Your task to perform on an android device: Show me some nice wallpapers for my laptop Image 0: 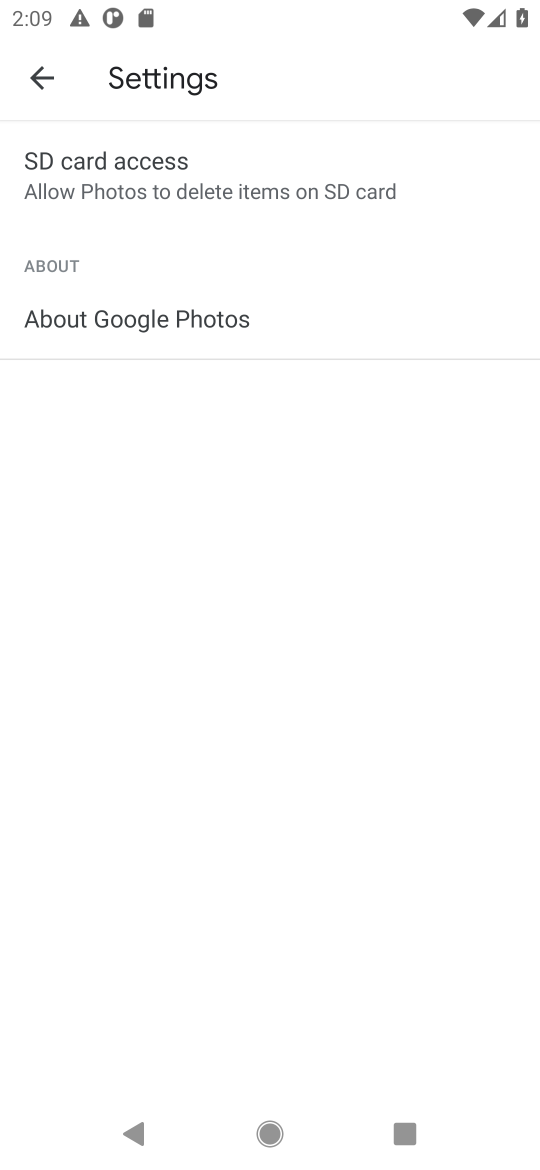
Step 0: press home button
Your task to perform on an android device: Show me some nice wallpapers for my laptop Image 1: 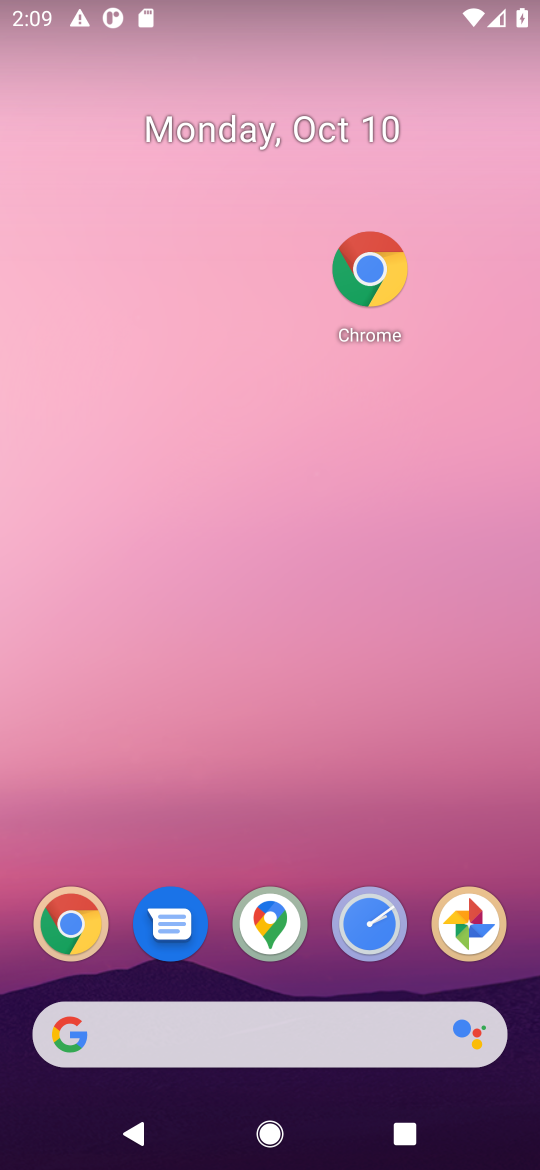
Step 1: drag from (346, 853) to (285, 12)
Your task to perform on an android device: Show me some nice wallpapers for my laptop Image 2: 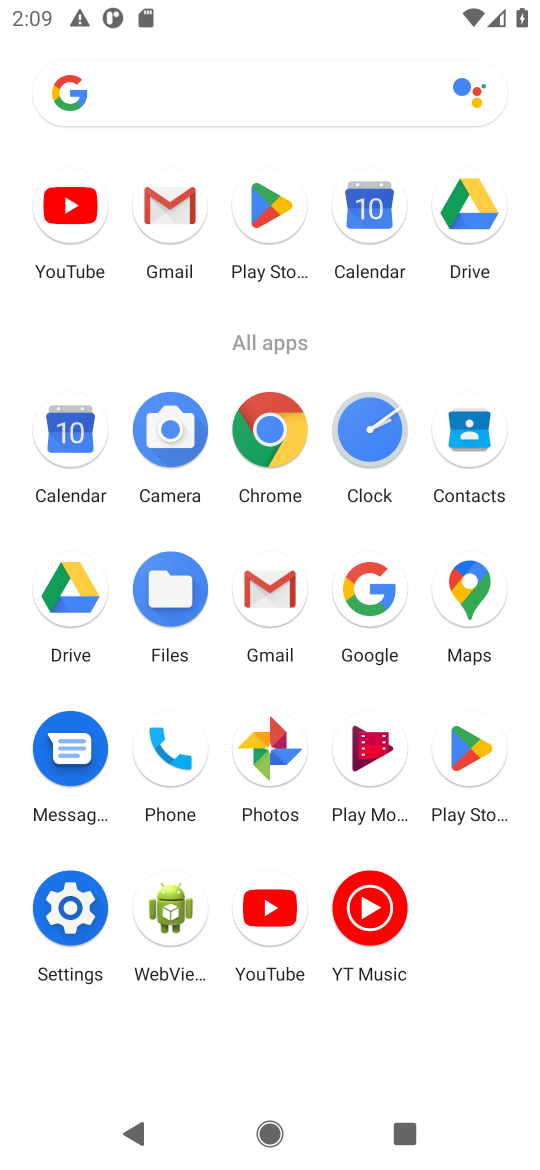
Step 2: click (261, 429)
Your task to perform on an android device: Show me some nice wallpapers for my laptop Image 3: 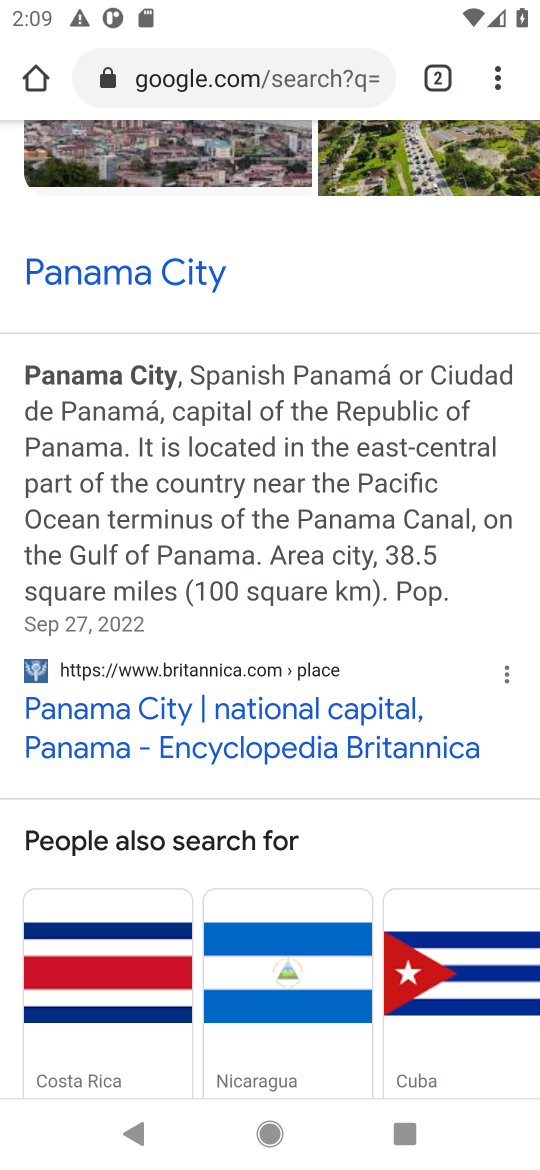
Step 3: click (238, 81)
Your task to perform on an android device: Show me some nice wallpapers for my laptop Image 4: 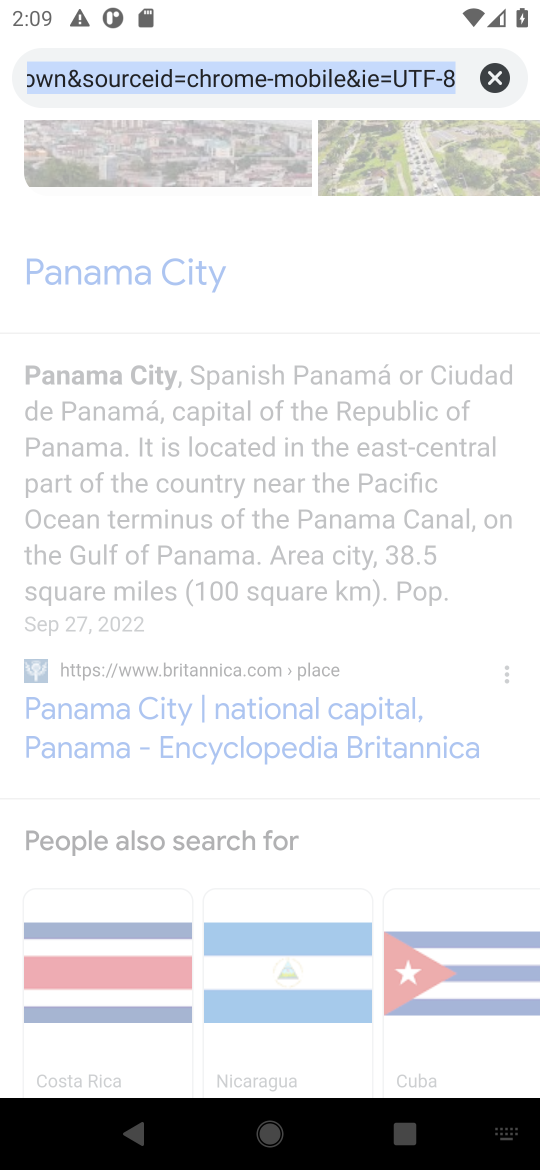
Step 4: click (495, 75)
Your task to perform on an android device: Show me some nice wallpapers for my laptop Image 5: 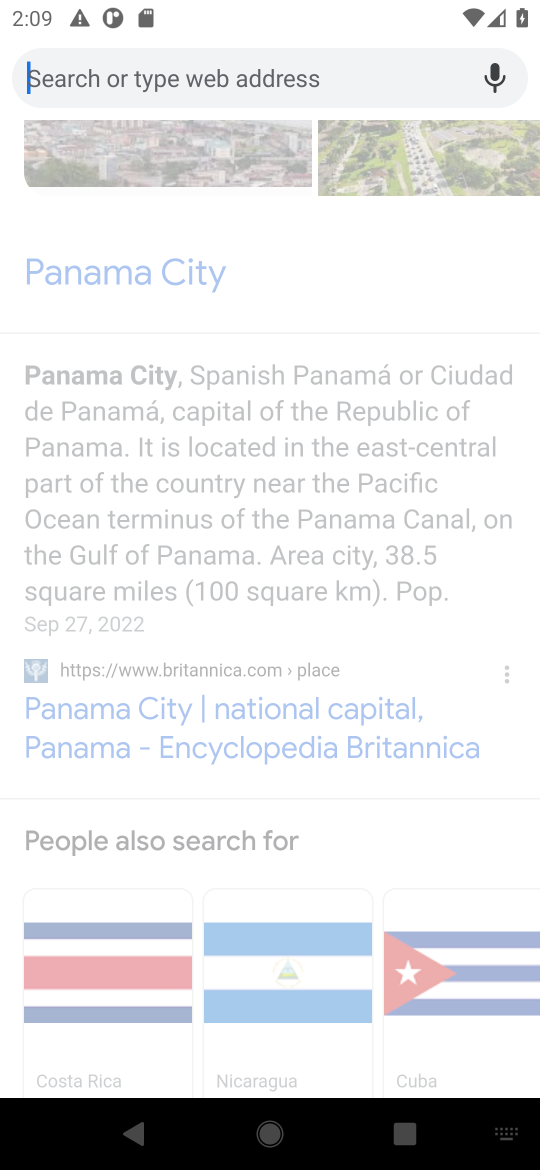
Step 5: click (489, 1161)
Your task to perform on an android device: Show me some nice wallpapers for my laptop Image 6: 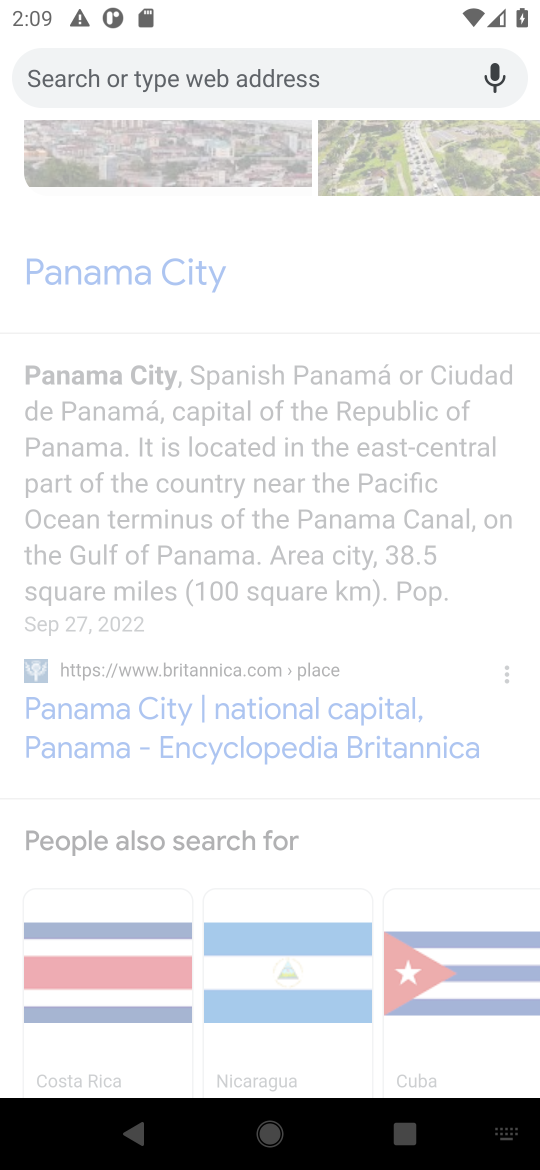
Step 6: type "Show me some nice wallpapers for my laptop"
Your task to perform on an android device: Show me some nice wallpapers for my laptop Image 7: 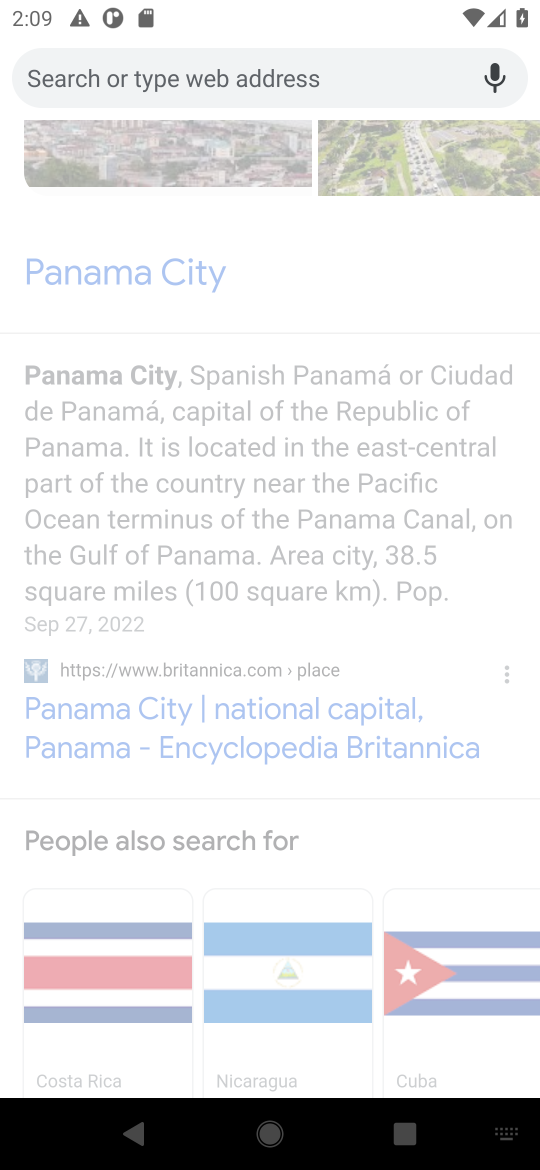
Step 7: task complete